Your task to perform on an android device: turn on bluetooth scan Image 0: 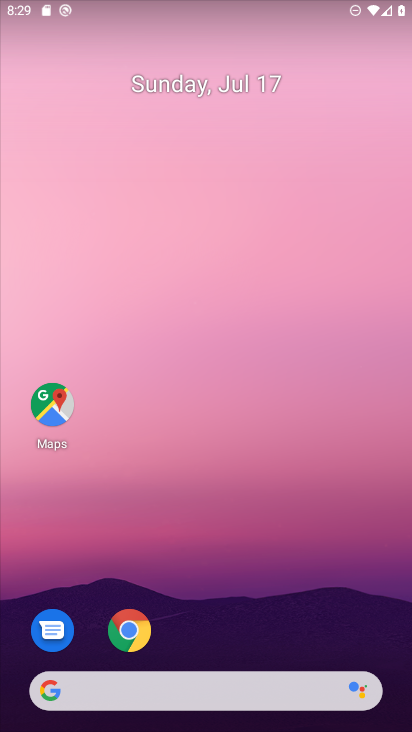
Step 0: drag from (385, 655) to (235, 36)
Your task to perform on an android device: turn on bluetooth scan Image 1: 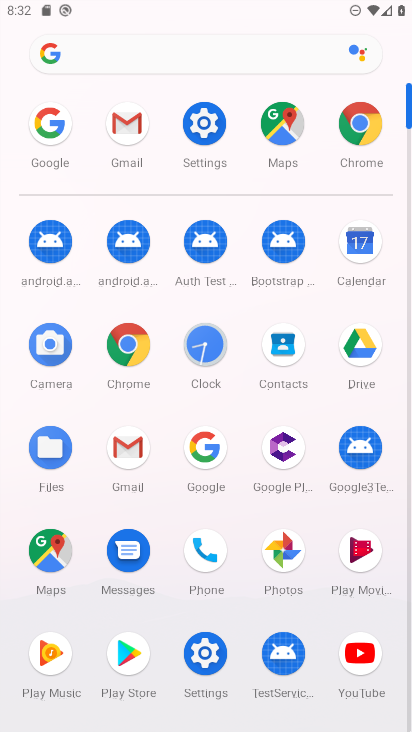
Step 1: click (205, 664)
Your task to perform on an android device: turn on bluetooth scan Image 2: 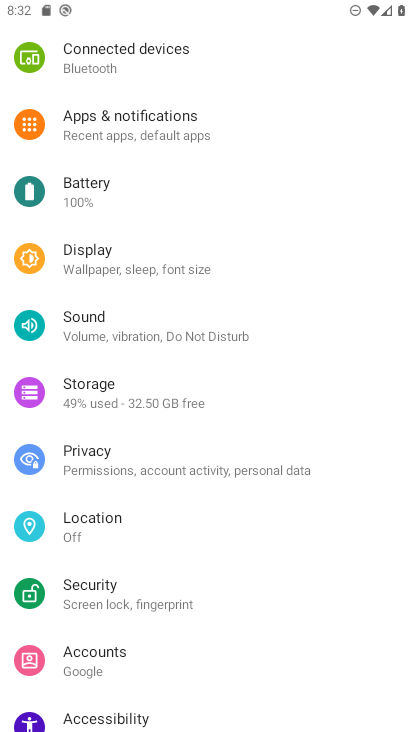
Step 2: click (111, 543)
Your task to perform on an android device: turn on bluetooth scan Image 3: 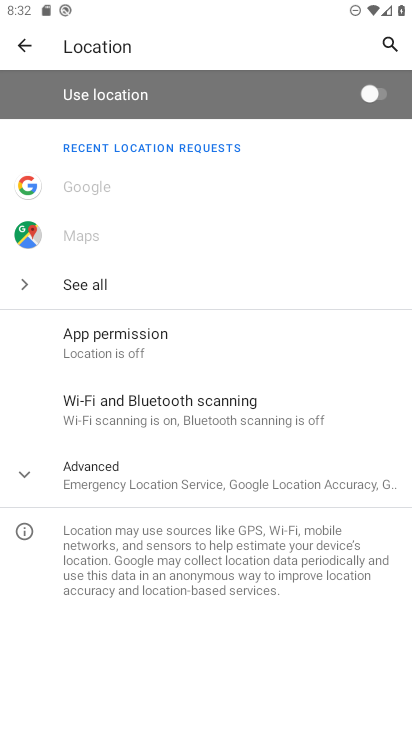
Step 3: click (194, 398)
Your task to perform on an android device: turn on bluetooth scan Image 4: 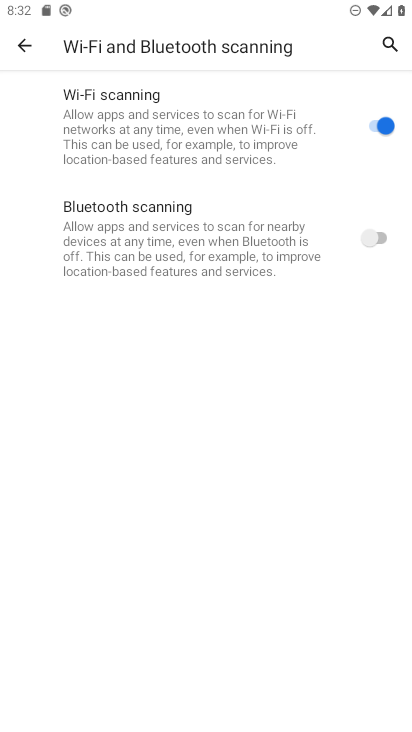
Step 4: click (381, 240)
Your task to perform on an android device: turn on bluetooth scan Image 5: 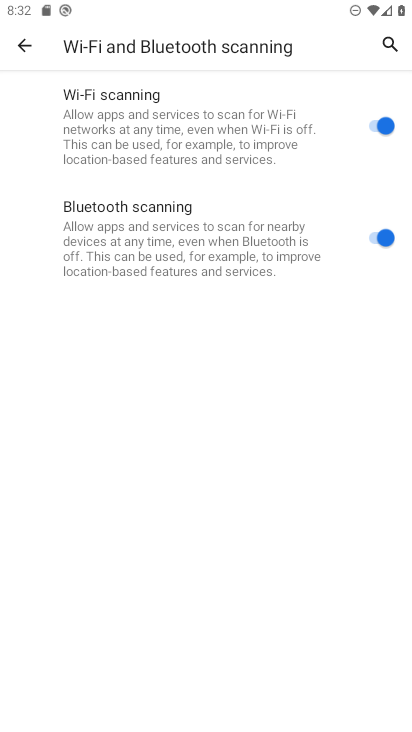
Step 5: task complete